Your task to perform on an android device: Open Reddit.com Image 0: 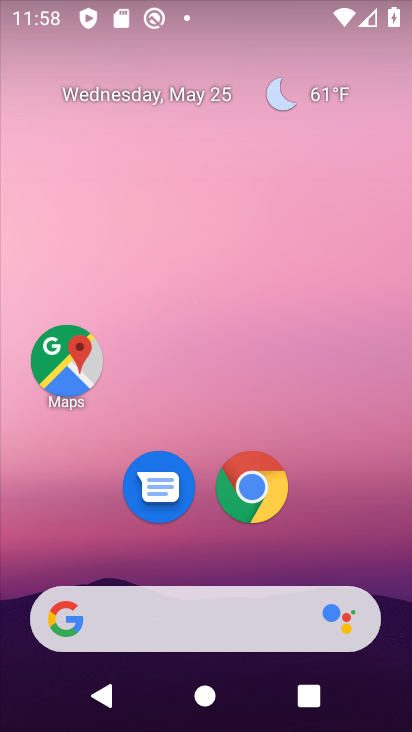
Step 0: drag from (259, 663) to (155, 193)
Your task to perform on an android device: Open Reddit.com Image 1: 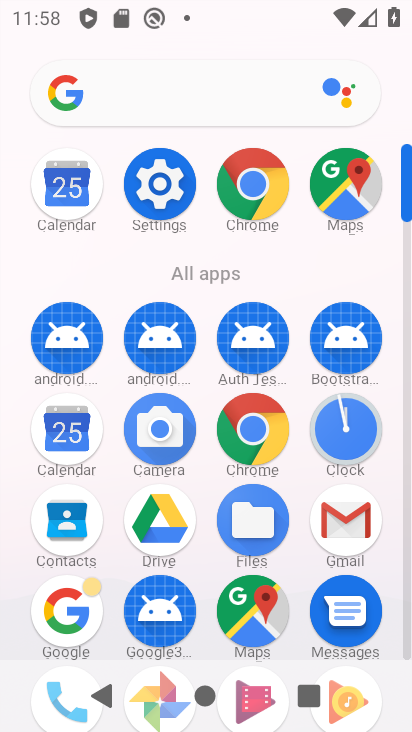
Step 1: click (241, 195)
Your task to perform on an android device: Open Reddit.com Image 2: 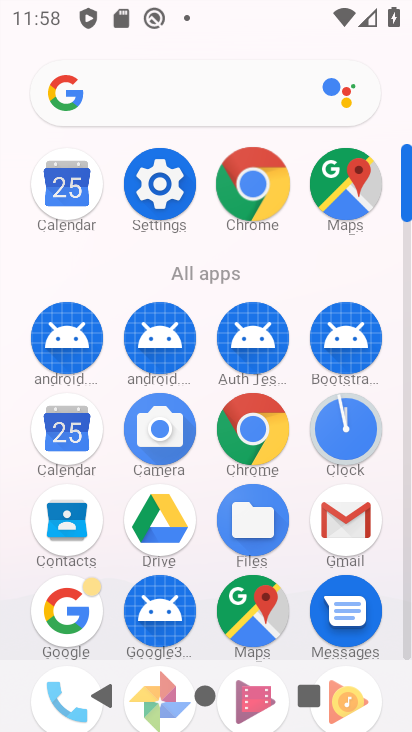
Step 2: click (241, 195)
Your task to perform on an android device: Open Reddit.com Image 3: 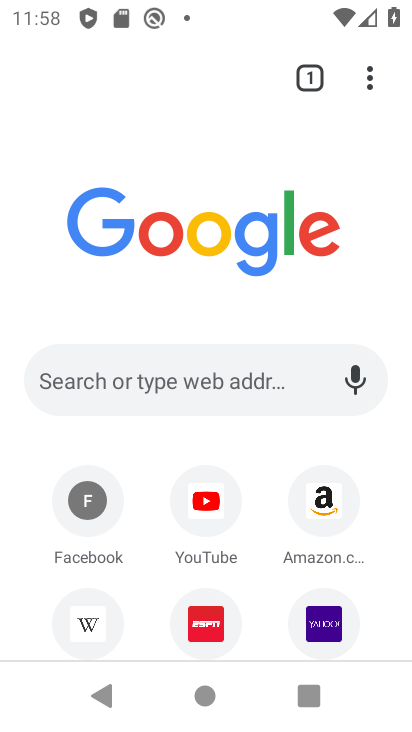
Step 3: click (103, 370)
Your task to perform on an android device: Open Reddit.com Image 4: 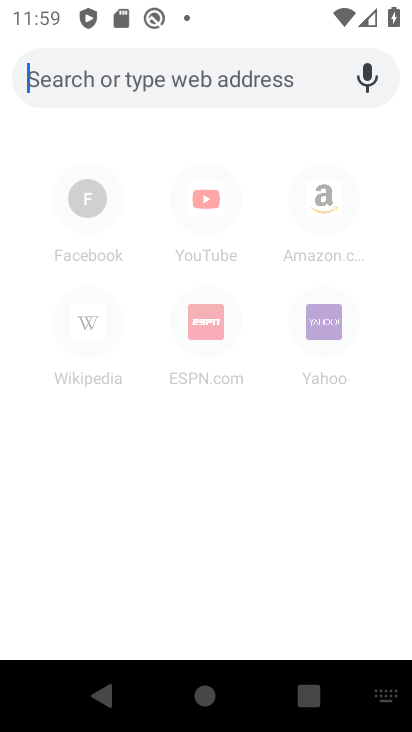
Step 4: type "reddit.com"
Your task to perform on an android device: Open Reddit.com Image 5: 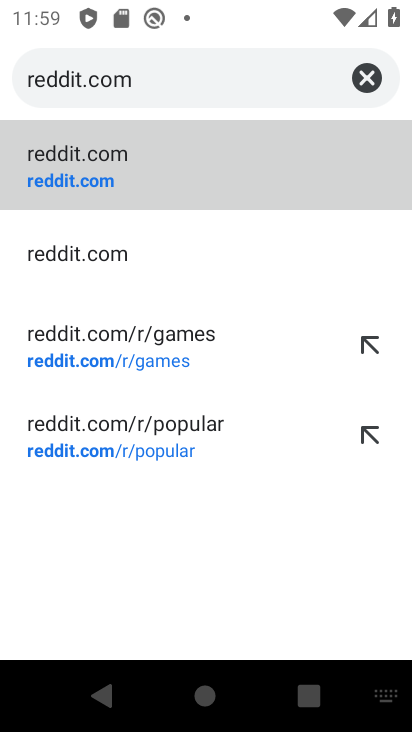
Step 5: click (70, 172)
Your task to perform on an android device: Open Reddit.com Image 6: 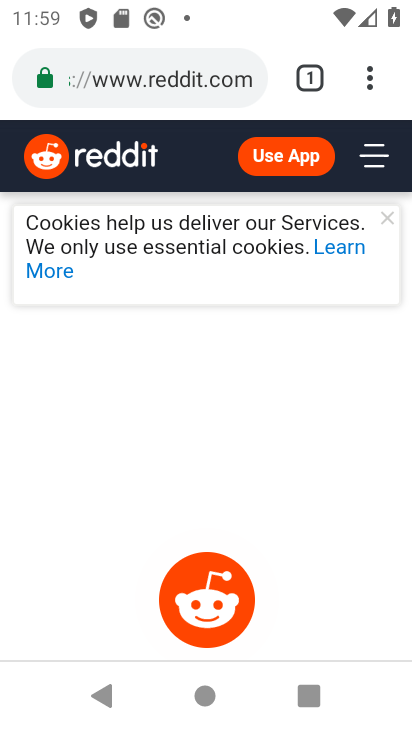
Step 6: task complete